Your task to perform on an android device: Go to Maps Image 0: 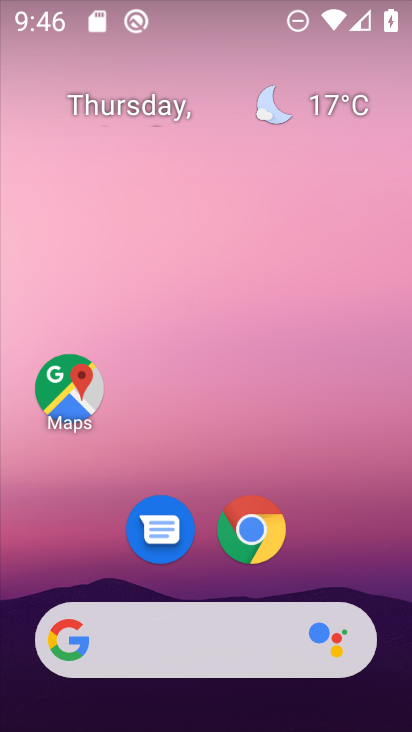
Step 0: click (69, 402)
Your task to perform on an android device: Go to Maps Image 1: 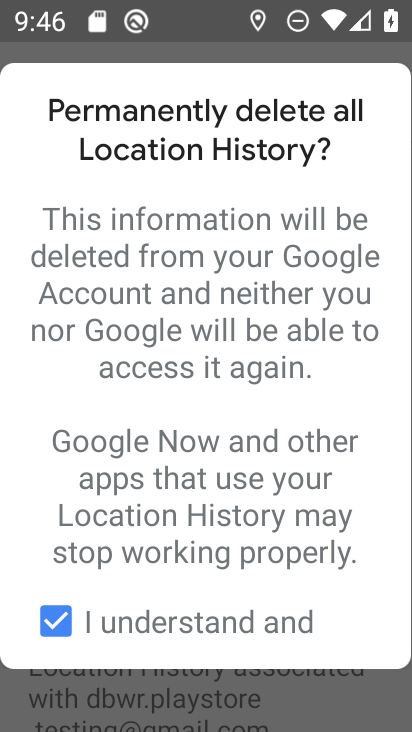
Step 1: task complete